Your task to perform on an android device: Open privacy settings Image 0: 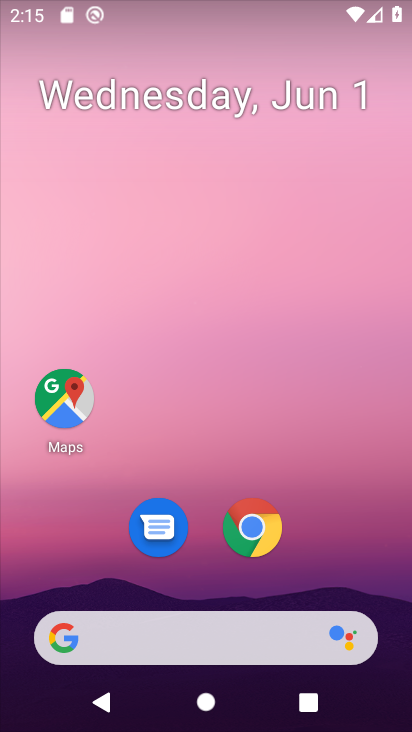
Step 0: drag from (216, 588) to (190, 321)
Your task to perform on an android device: Open privacy settings Image 1: 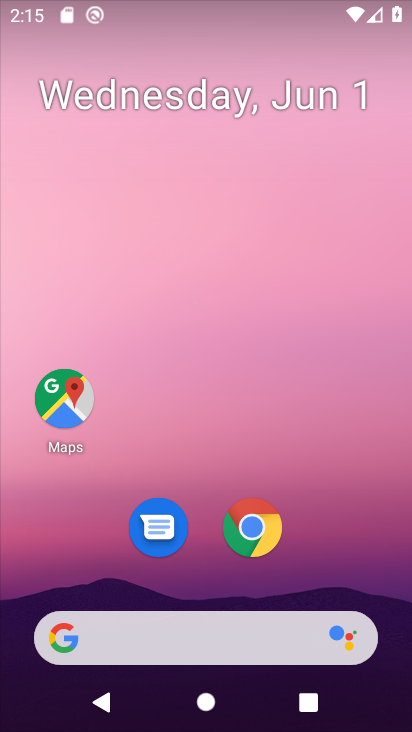
Step 1: drag from (200, 591) to (220, 30)
Your task to perform on an android device: Open privacy settings Image 2: 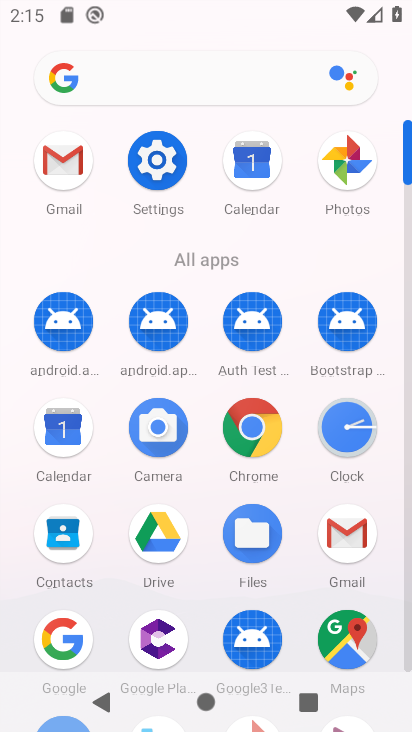
Step 2: click (163, 189)
Your task to perform on an android device: Open privacy settings Image 3: 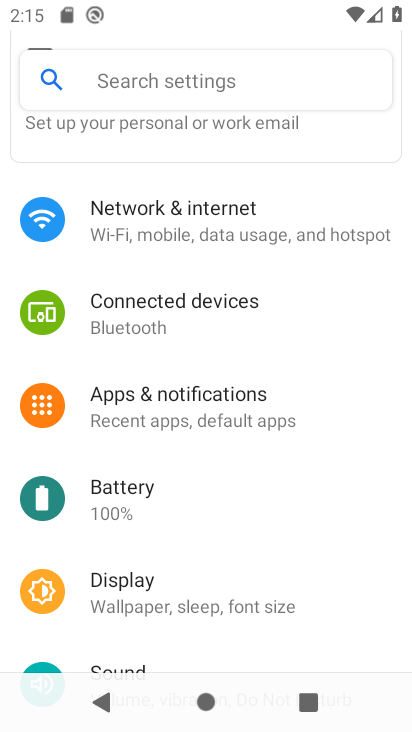
Step 3: drag from (153, 610) to (228, 243)
Your task to perform on an android device: Open privacy settings Image 4: 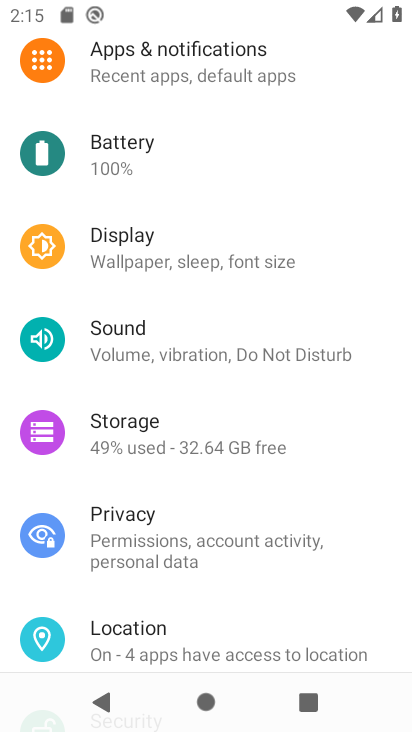
Step 4: click (148, 543)
Your task to perform on an android device: Open privacy settings Image 5: 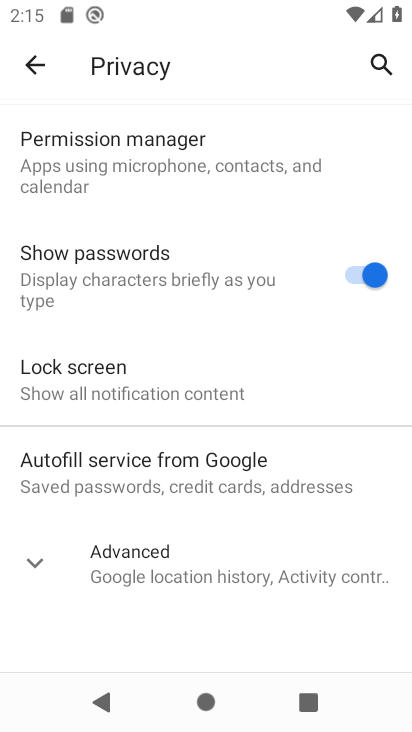
Step 5: task complete